Your task to perform on an android device: clear all cookies in the chrome app Image 0: 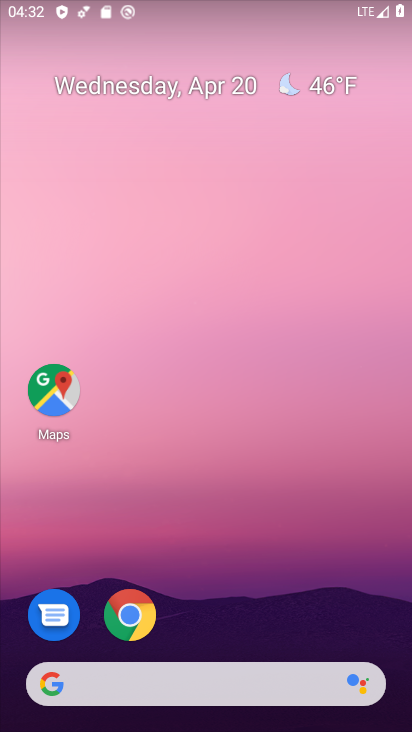
Step 0: click (139, 612)
Your task to perform on an android device: clear all cookies in the chrome app Image 1: 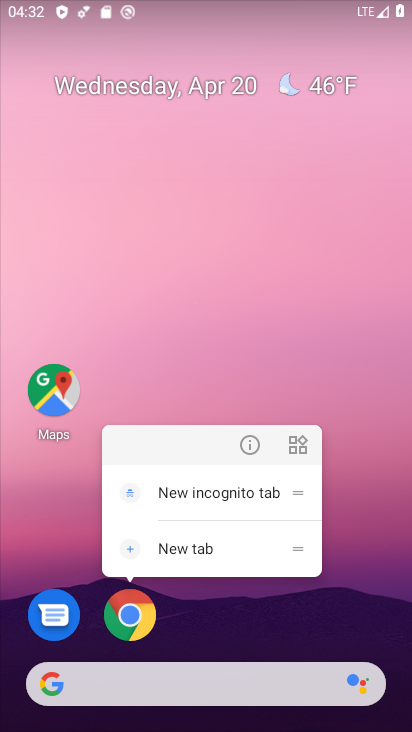
Step 1: click (129, 613)
Your task to perform on an android device: clear all cookies in the chrome app Image 2: 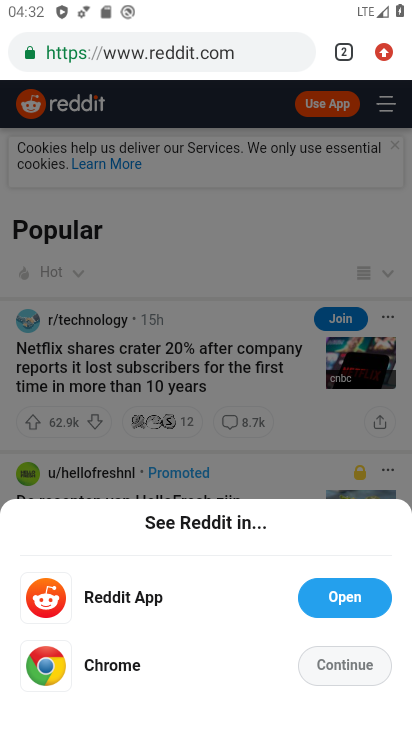
Step 2: click (256, 252)
Your task to perform on an android device: clear all cookies in the chrome app Image 3: 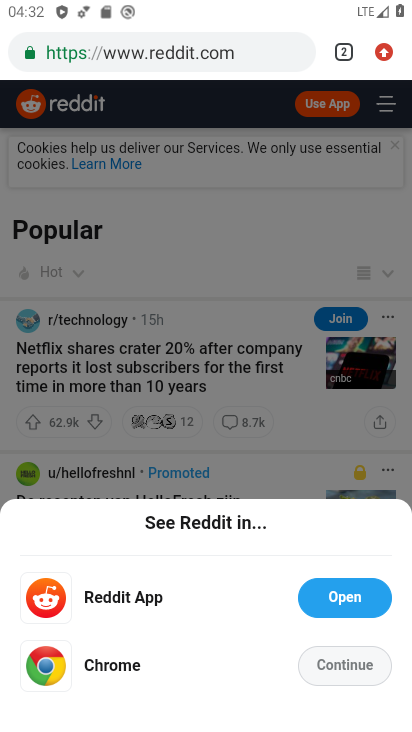
Step 3: click (382, 51)
Your task to perform on an android device: clear all cookies in the chrome app Image 4: 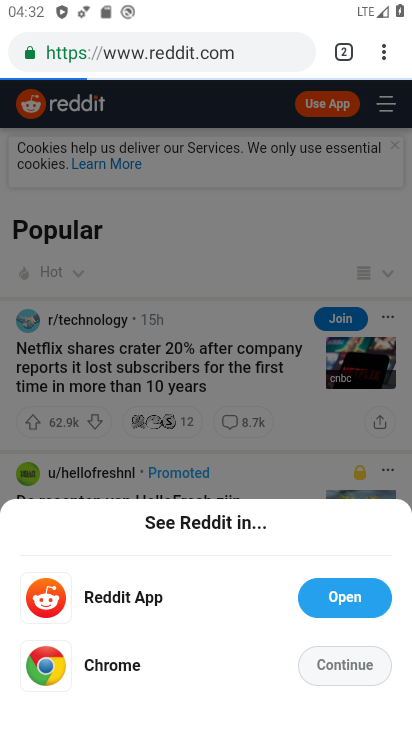
Step 4: drag from (382, 51) to (226, 372)
Your task to perform on an android device: clear all cookies in the chrome app Image 5: 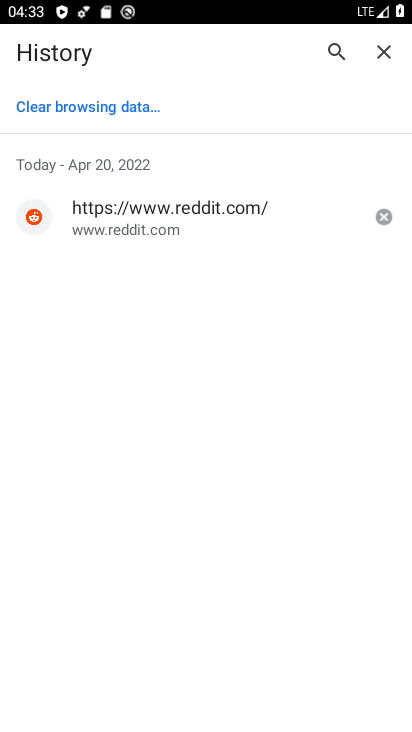
Step 5: click (161, 109)
Your task to perform on an android device: clear all cookies in the chrome app Image 6: 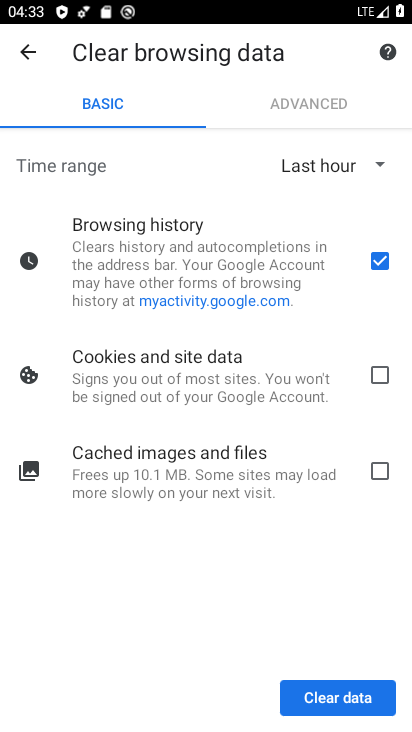
Step 6: click (377, 368)
Your task to perform on an android device: clear all cookies in the chrome app Image 7: 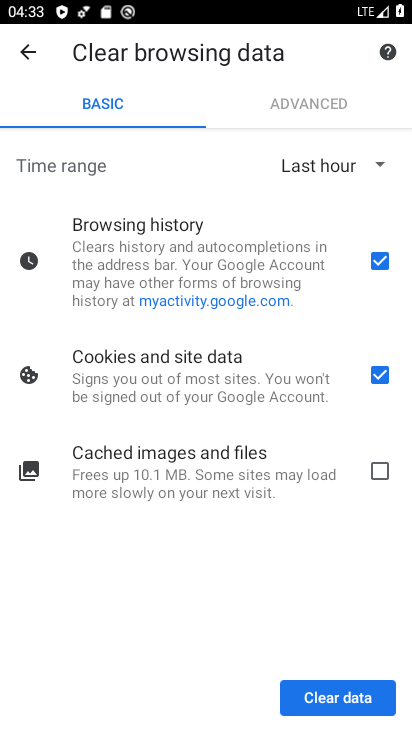
Step 7: click (349, 694)
Your task to perform on an android device: clear all cookies in the chrome app Image 8: 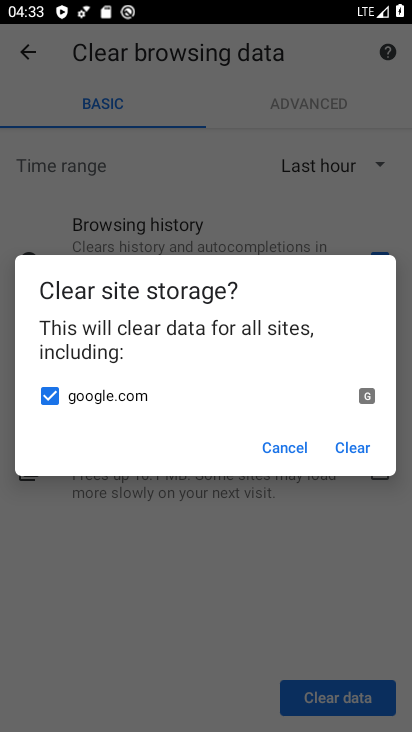
Step 8: click (354, 443)
Your task to perform on an android device: clear all cookies in the chrome app Image 9: 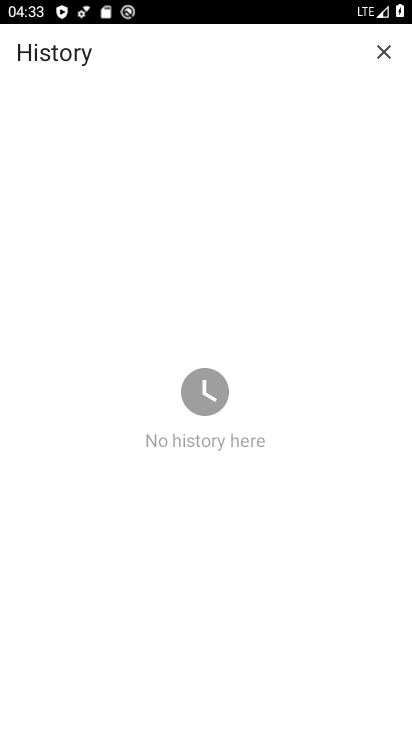
Step 9: task complete